Your task to perform on an android device: Open settings on Google Maps Image 0: 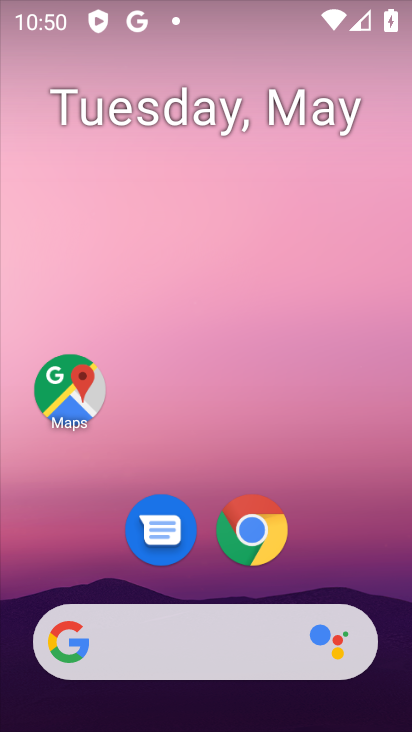
Step 0: drag from (318, 496) to (296, 146)
Your task to perform on an android device: Open settings on Google Maps Image 1: 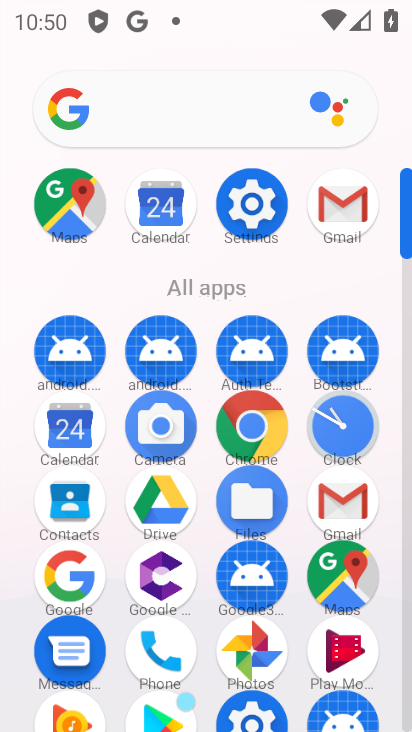
Step 1: click (339, 563)
Your task to perform on an android device: Open settings on Google Maps Image 2: 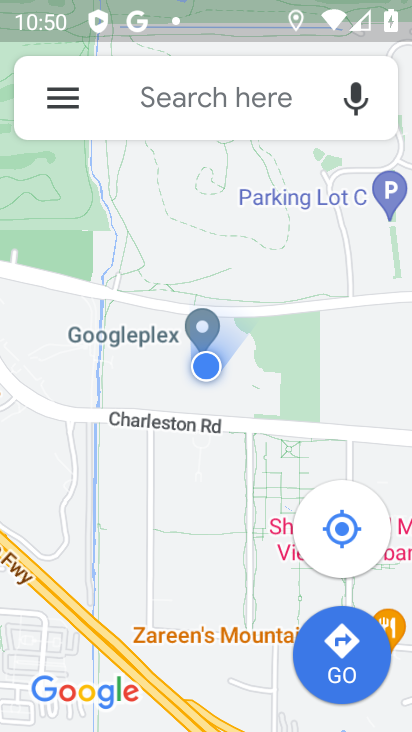
Step 2: click (53, 90)
Your task to perform on an android device: Open settings on Google Maps Image 3: 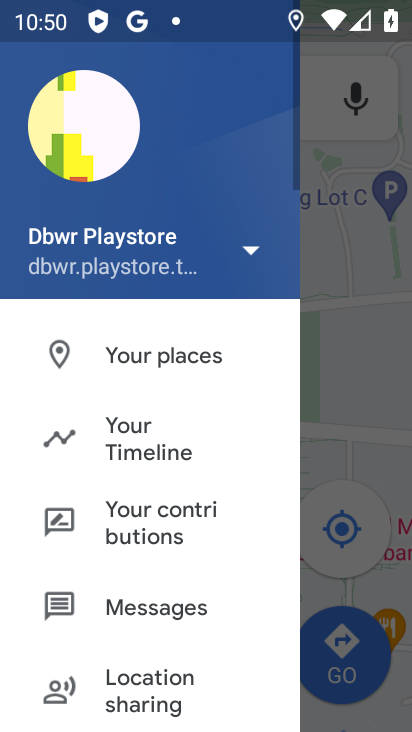
Step 3: drag from (187, 642) to (235, 218)
Your task to perform on an android device: Open settings on Google Maps Image 4: 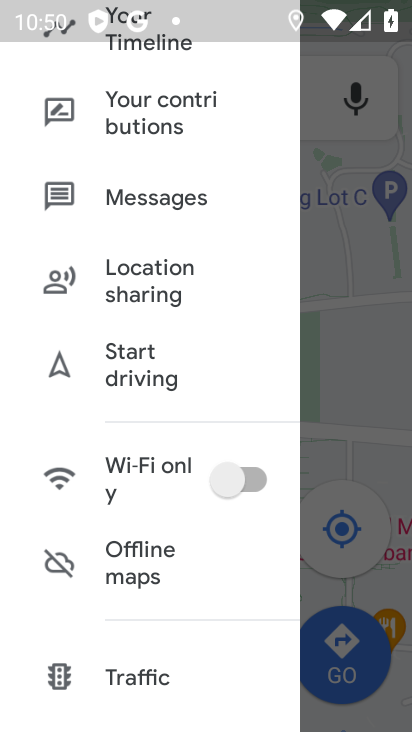
Step 4: drag from (135, 645) to (173, 248)
Your task to perform on an android device: Open settings on Google Maps Image 5: 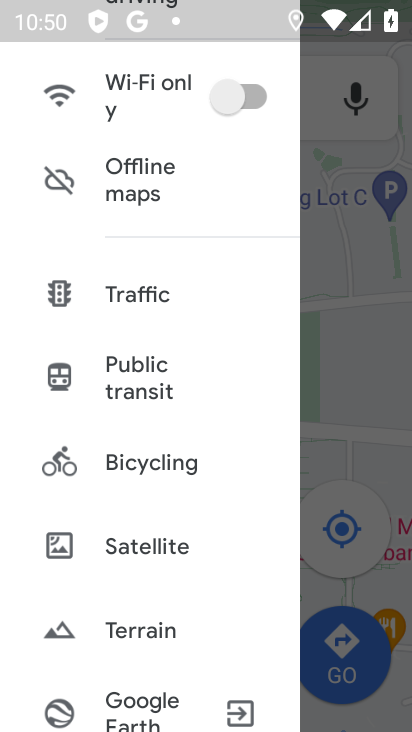
Step 5: drag from (136, 652) to (208, 264)
Your task to perform on an android device: Open settings on Google Maps Image 6: 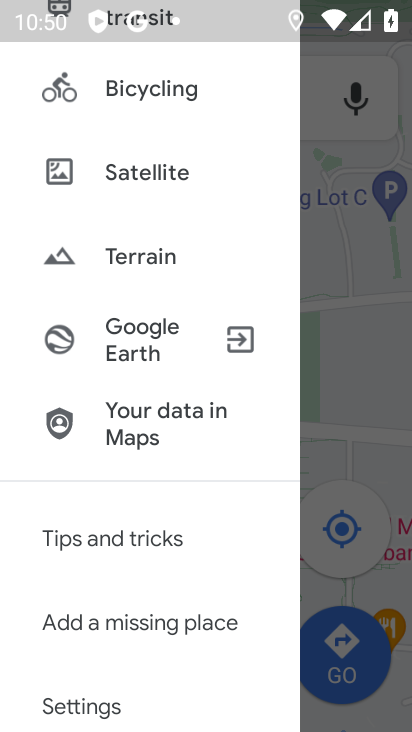
Step 6: click (91, 706)
Your task to perform on an android device: Open settings on Google Maps Image 7: 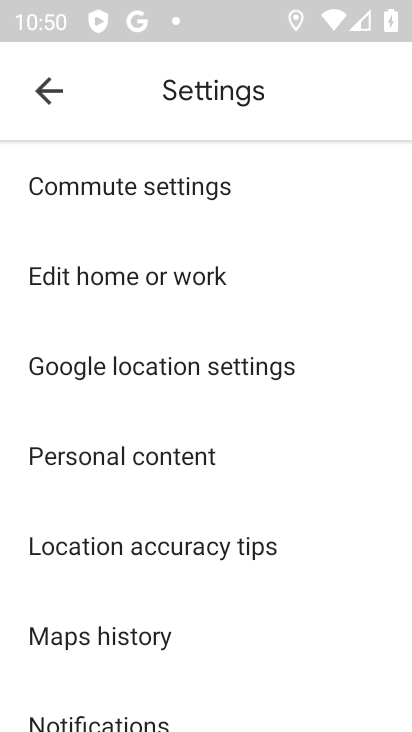
Step 7: task complete